Your task to perform on an android device: set the timer Image 0: 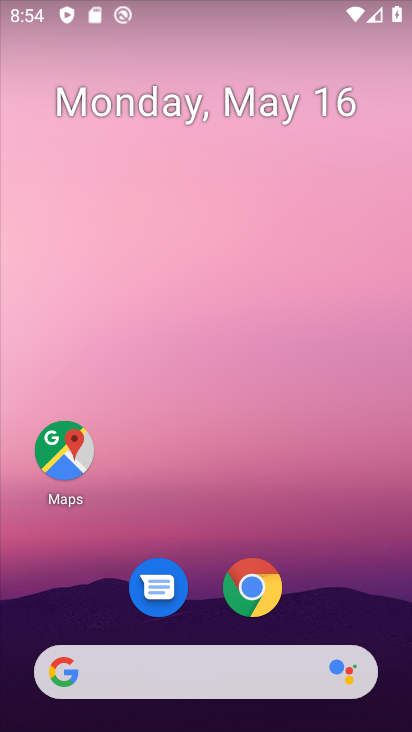
Step 0: drag from (310, 616) to (218, 63)
Your task to perform on an android device: set the timer Image 1: 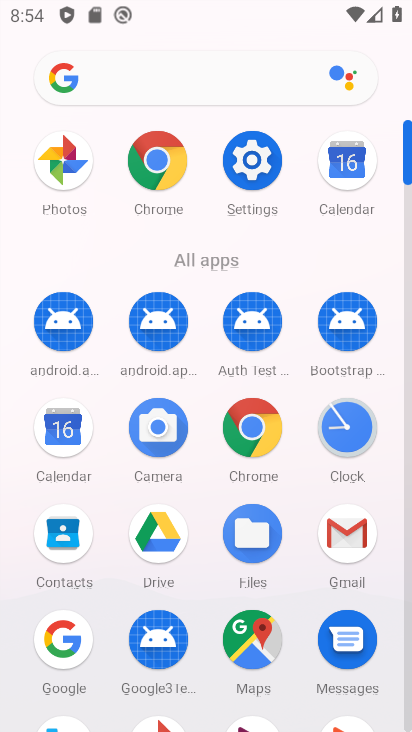
Step 1: click (341, 437)
Your task to perform on an android device: set the timer Image 2: 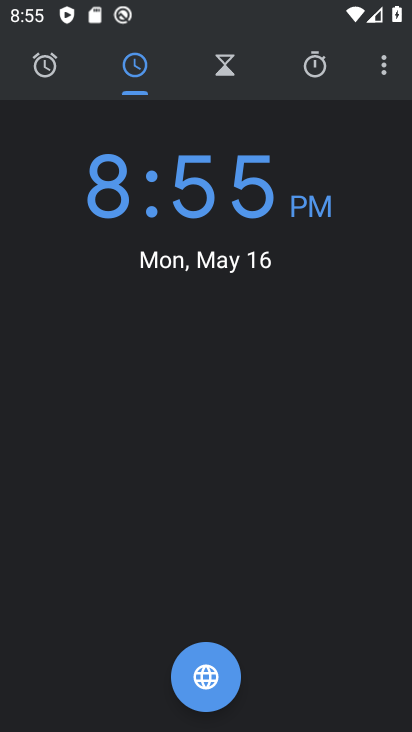
Step 2: click (229, 83)
Your task to perform on an android device: set the timer Image 3: 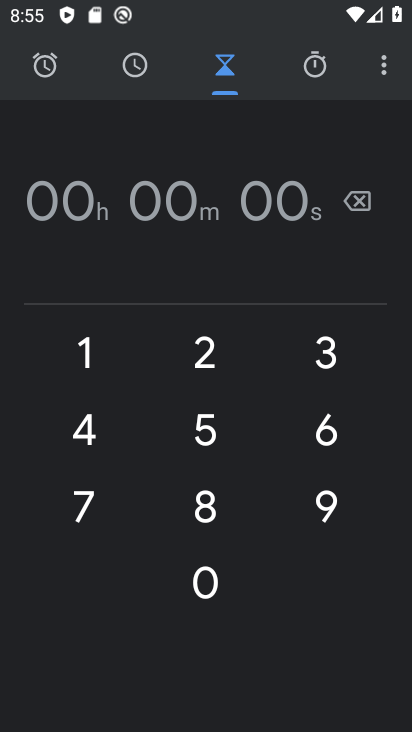
Step 3: type "100000"
Your task to perform on an android device: set the timer Image 4: 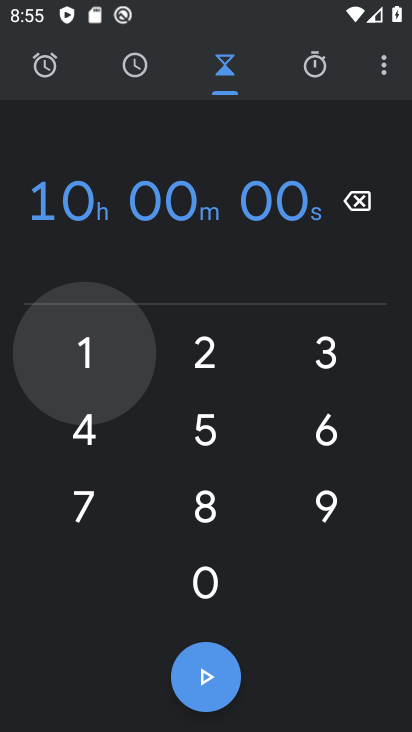
Step 4: click (222, 664)
Your task to perform on an android device: set the timer Image 5: 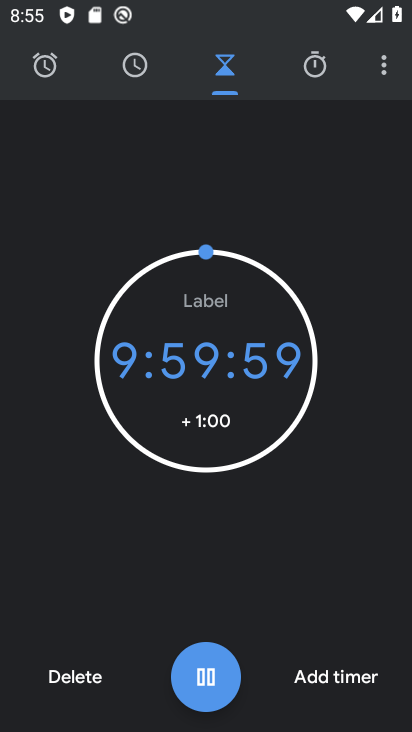
Step 5: task complete